Your task to perform on an android device: toggle javascript in the chrome app Image 0: 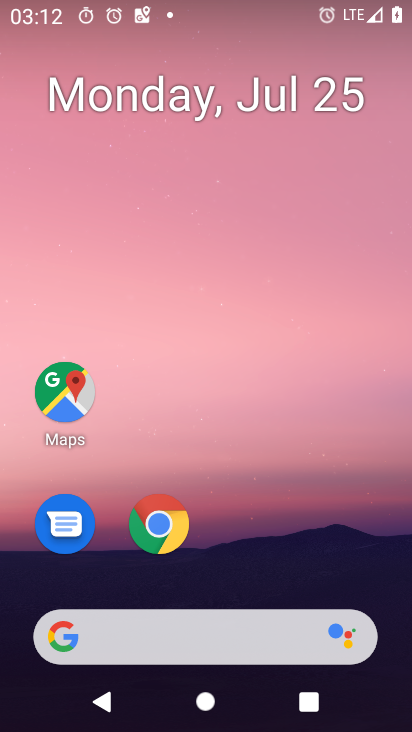
Step 0: press home button
Your task to perform on an android device: toggle javascript in the chrome app Image 1: 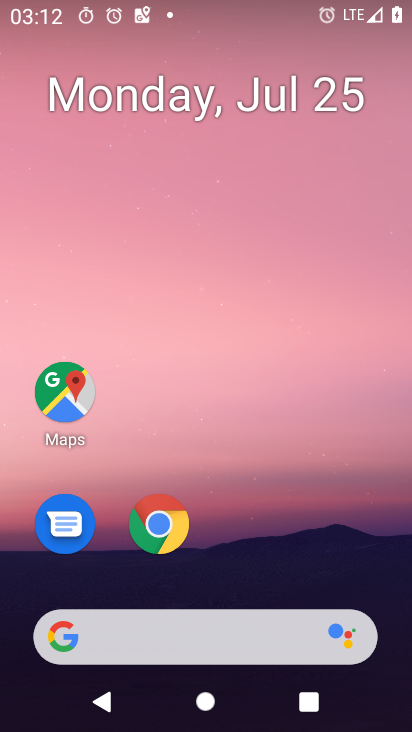
Step 1: drag from (258, 588) to (183, 0)
Your task to perform on an android device: toggle javascript in the chrome app Image 2: 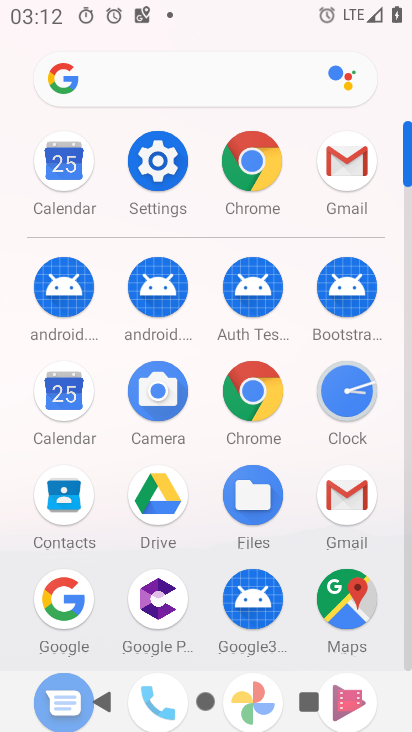
Step 2: click (245, 161)
Your task to perform on an android device: toggle javascript in the chrome app Image 3: 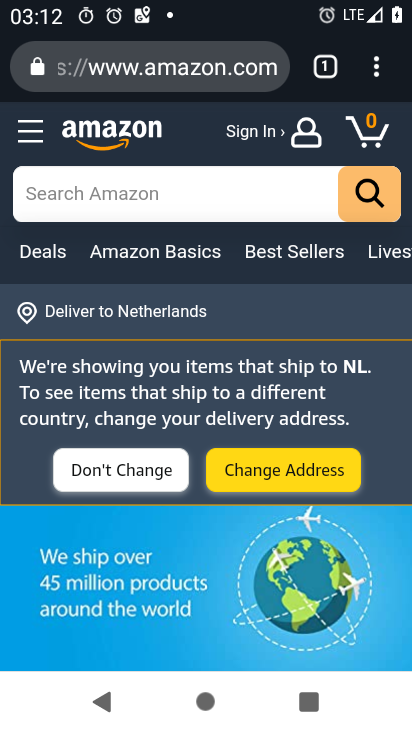
Step 3: drag from (378, 63) to (194, 517)
Your task to perform on an android device: toggle javascript in the chrome app Image 4: 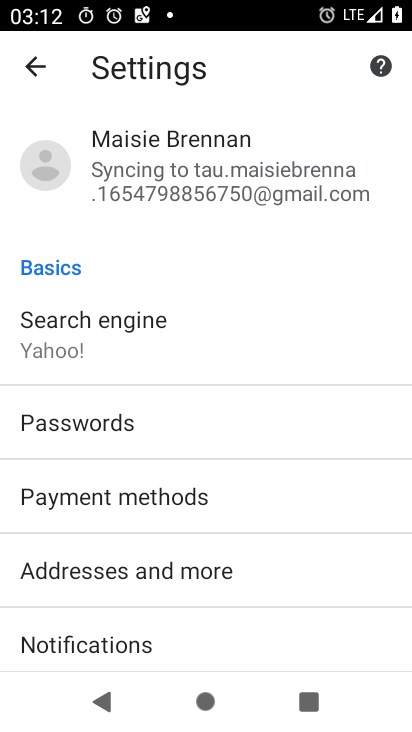
Step 4: drag from (269, 596) to (280, 210)
Your task to perform on an android device: toggle javascript in the chrome app Image 5: 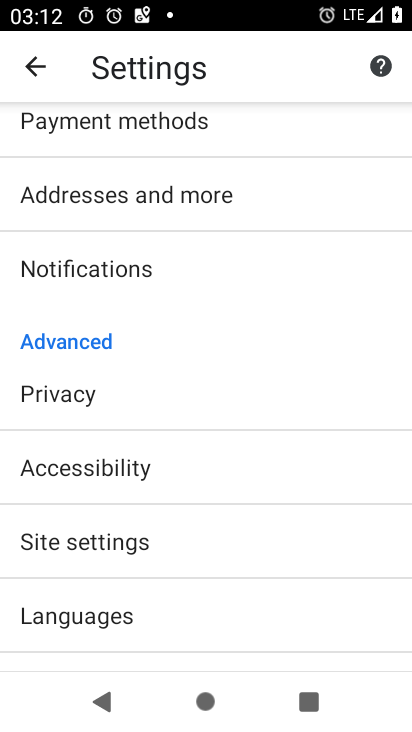
Step 5: click (86, 548)
Your task to perform on an android device: toggle javascript in the chrome app Image 6: 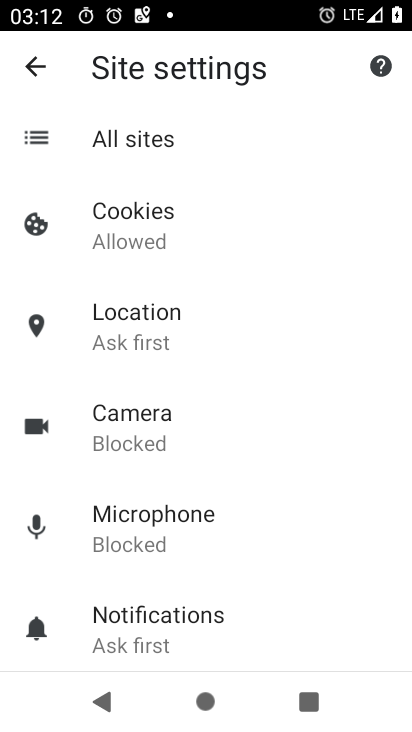
Step 6: drag from (287, 576) to (295, 120)
Your task to perform on an android device: toggle javascript in the chrome app Image 7: 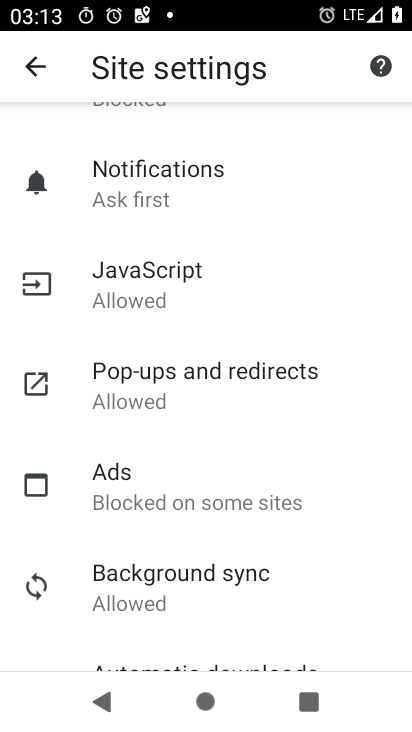
Step 7: click (135, 292)
Your task to perform on an android device: toggle javascript in the chrome app Image 8: 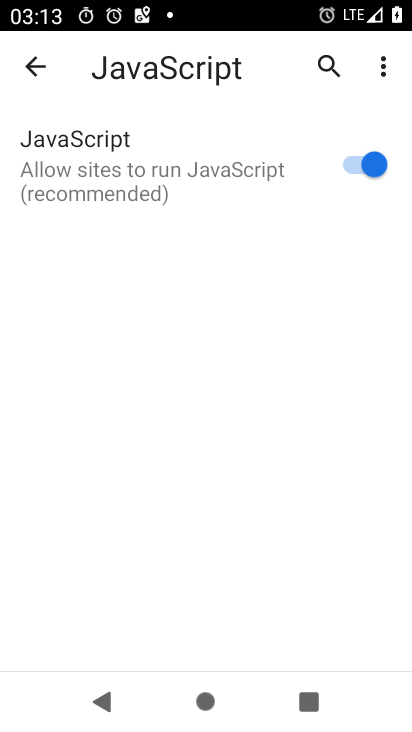
Step 8: click (372, 167)
Your task to perform on an android device: toggle javascript in the chrome app Image 9: 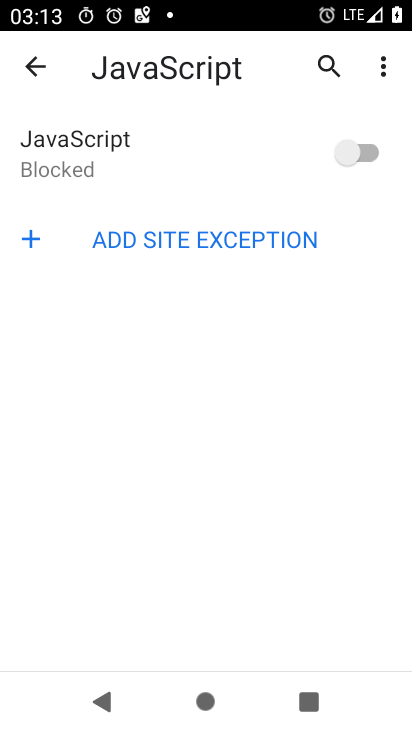
Step 9: task complete